Your task to perform on an android device: check battery use Image 0: 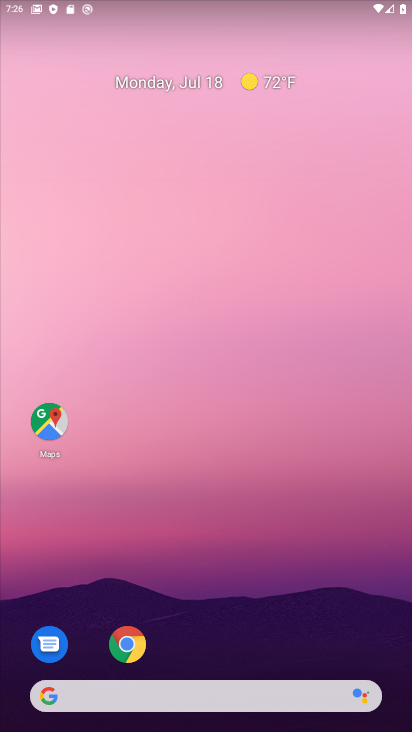
Step 0: drag from (379, 659) to (265, 91)
Your task to perform on an android device: check battery use Image 1: 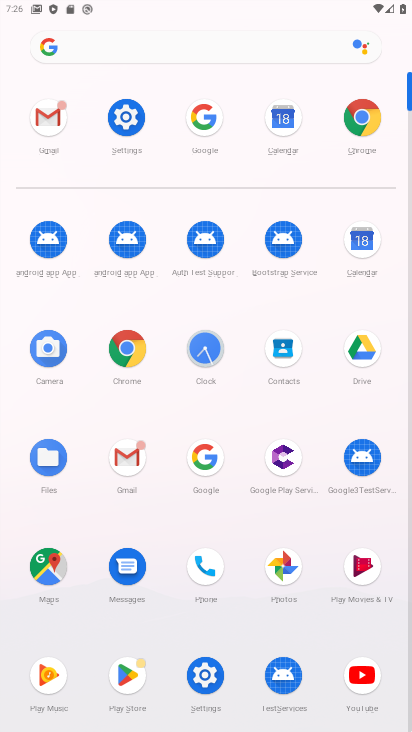
Step 1: click (210, 670)
Your task to perform on an android device: check battery use Image 2: 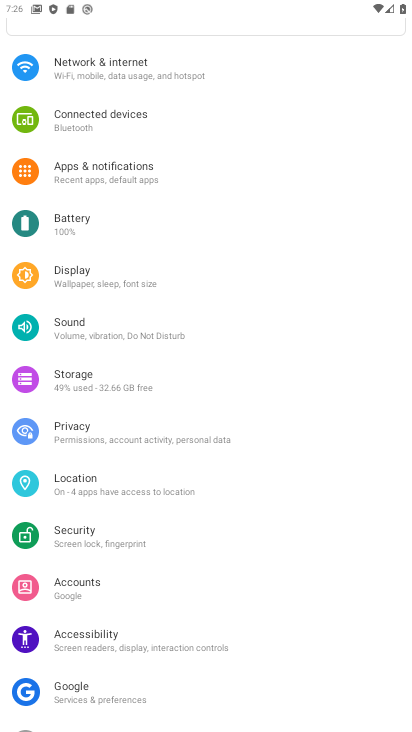
Step 2: drag from (142, 204) to (205, 593)
Your task to perform on an android device: check battery use Image 3: 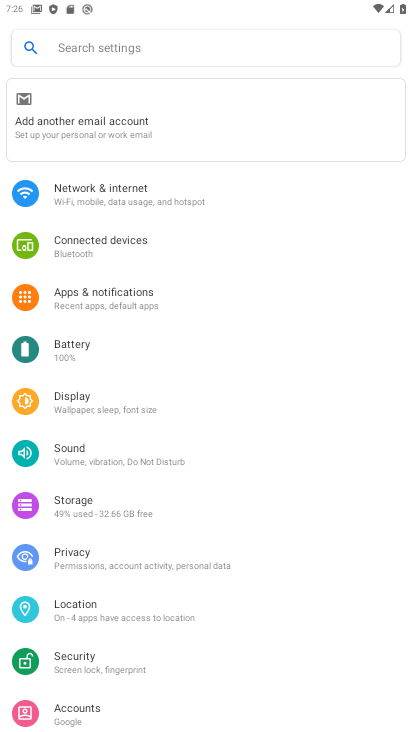
Step 3: drag from (116, 634) to (154, 259)
Your task to perform on an android device: check battery use Image 4: 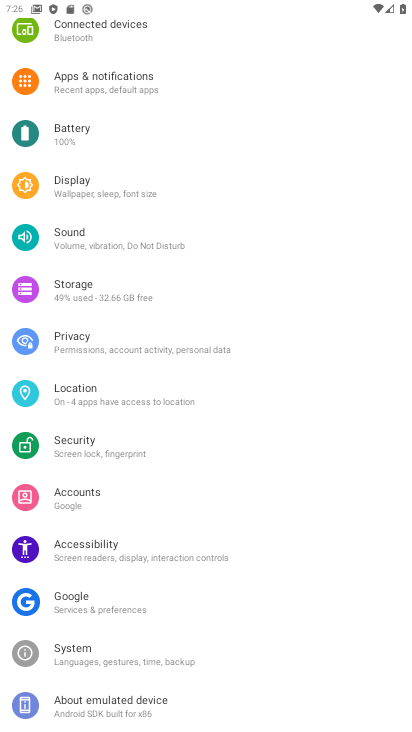
Step 4: click (101, 138)
Your task to perform on an android device: check battery use Image 5: 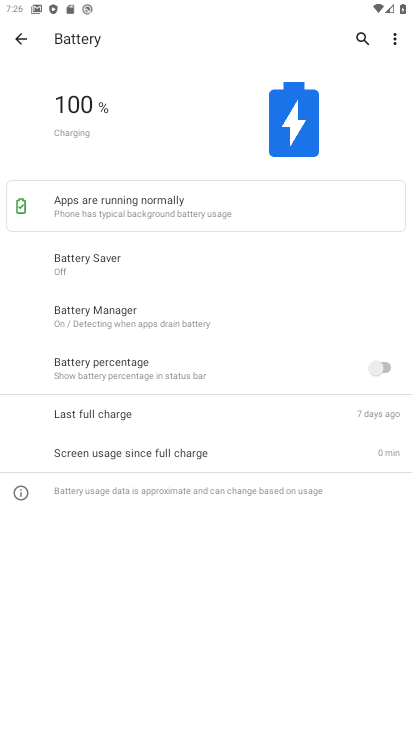
Step 5: click (390, 33)
Your task to perform on an android device: check battery use Image 6: 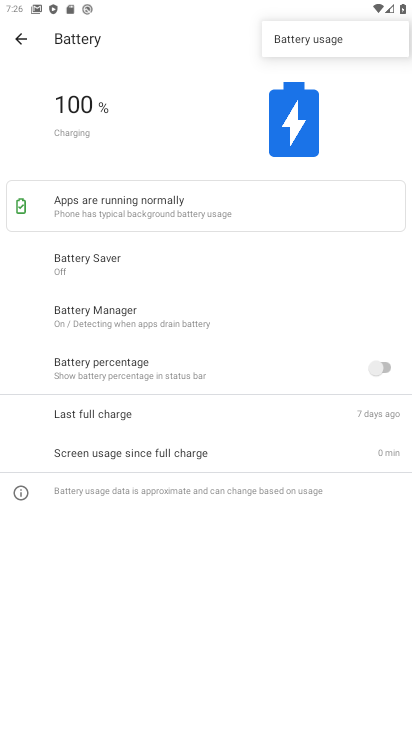
Step 6: click (351, 33)
Your task to perform on an android device: check battery use Image 7: 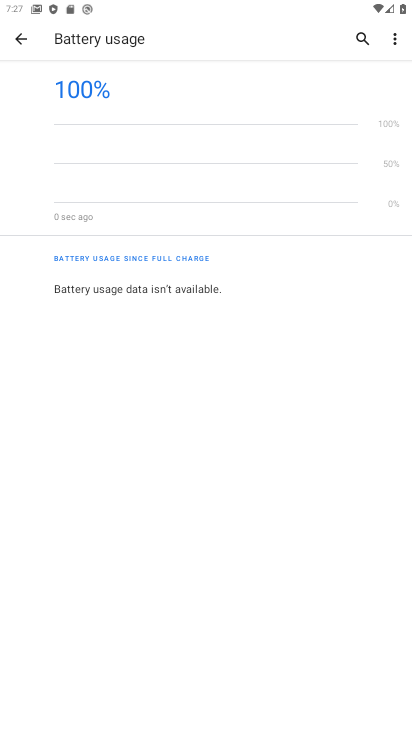
Step 7: task complete